Your task to perform on an android device: toggle sleep mode Image 0: 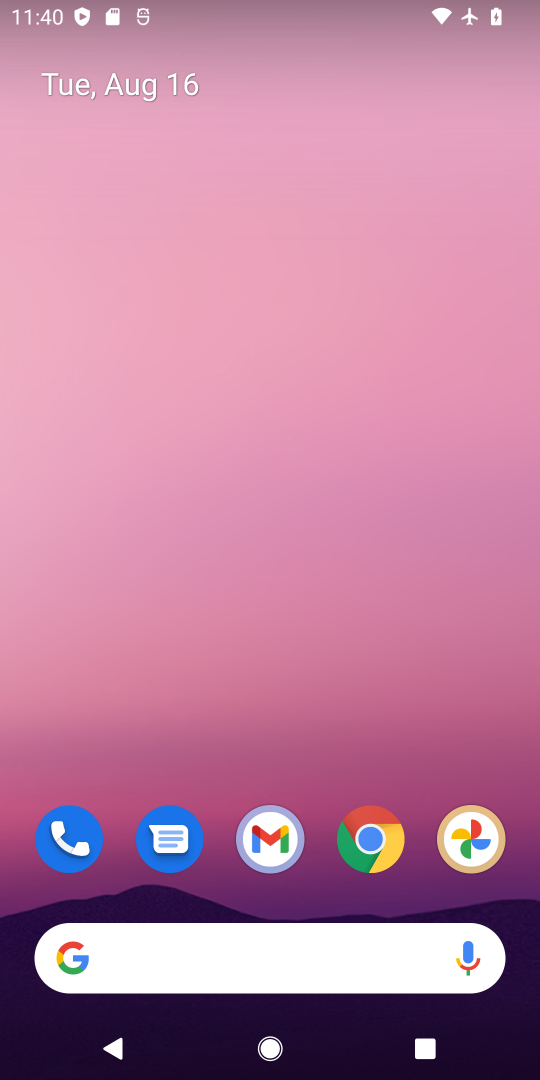
Step 0: drag from (206, 836) to (260, 15)
Your task to perform on an android device: toggle sleep mode Image 1: 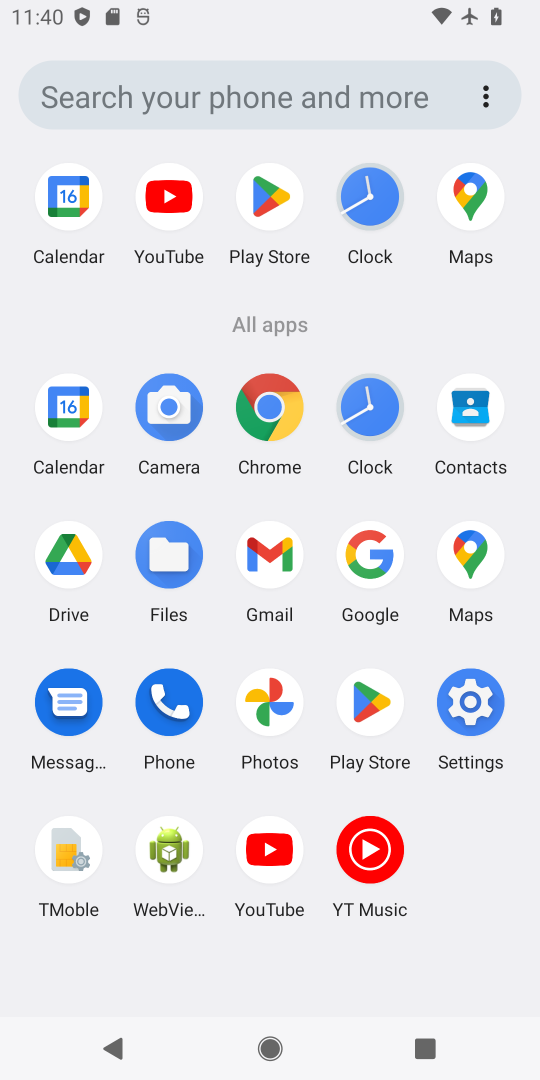
Step 1: click (466, 714)
Your task to perform on an android device: toggle sleep mode Image 2: 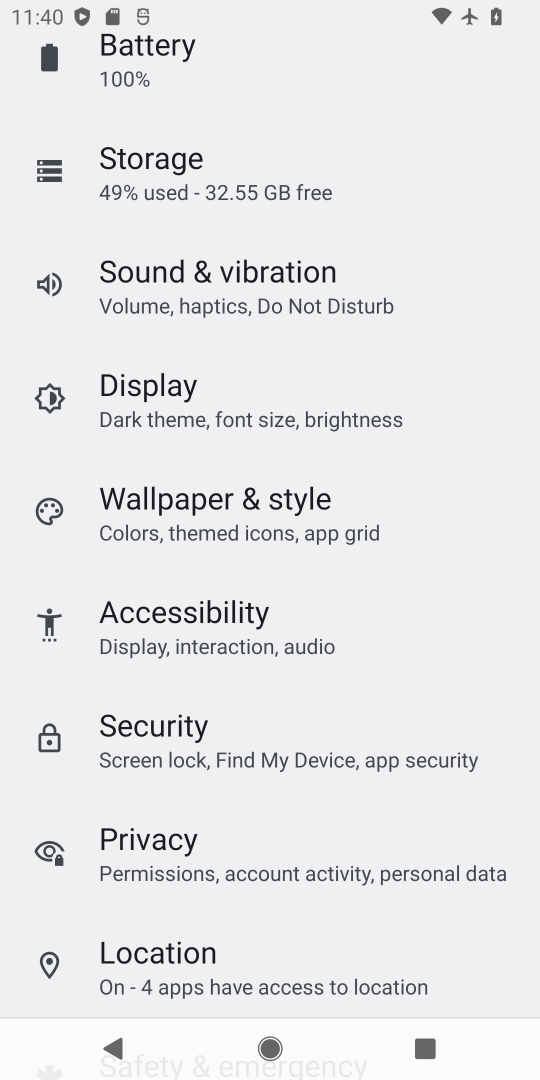
Step 2: drag from (276, 192) to (304, 914)
Your task to perform on an android device: toggle sleep mode Image 3: 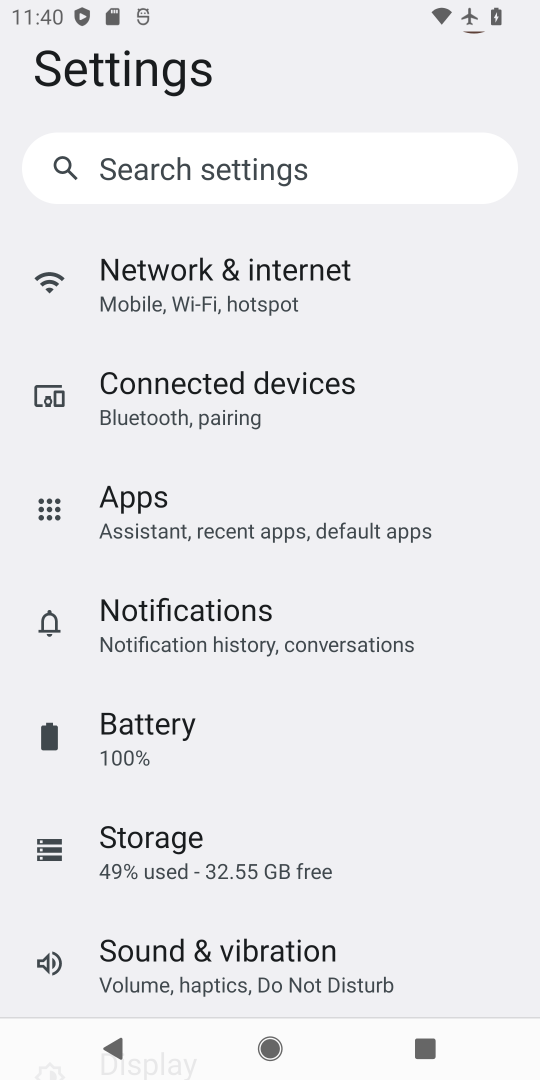
Step 3: click (241, 169)
Your task to perform on an android device: toggle sleep mode Image 4: 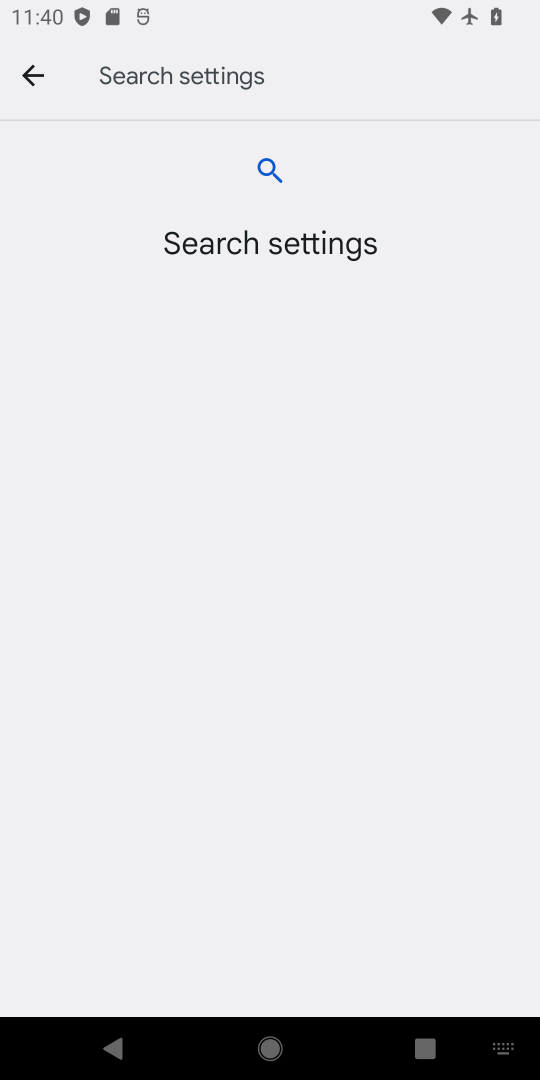
Step 4: type "sleep mode"
Your task to perform on an android device: toggle sleep mode Image 5: 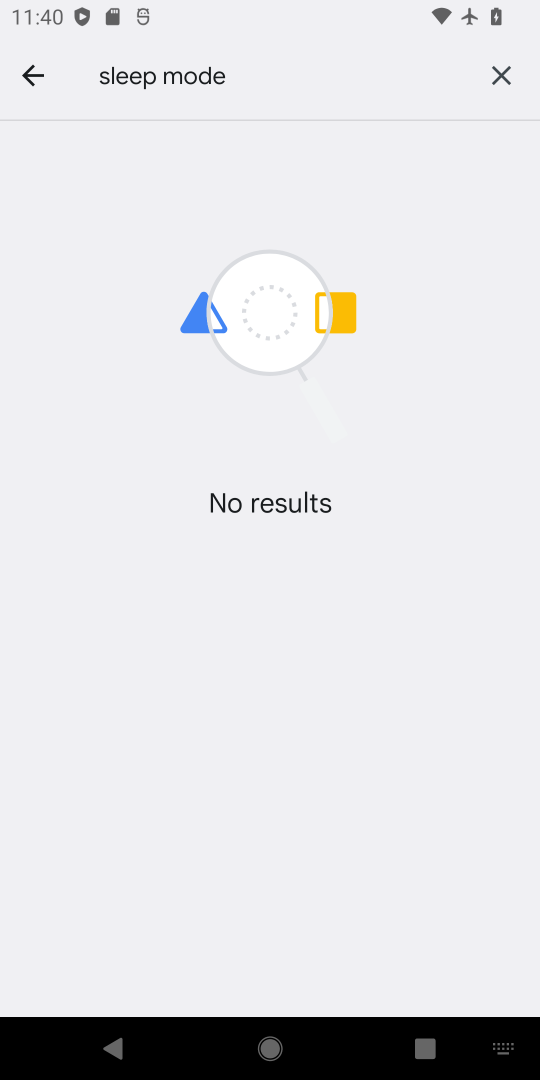
Step 5: task complete